Your task to perform on an android device: Search for vegetarian restaurants on Maps Image 0: 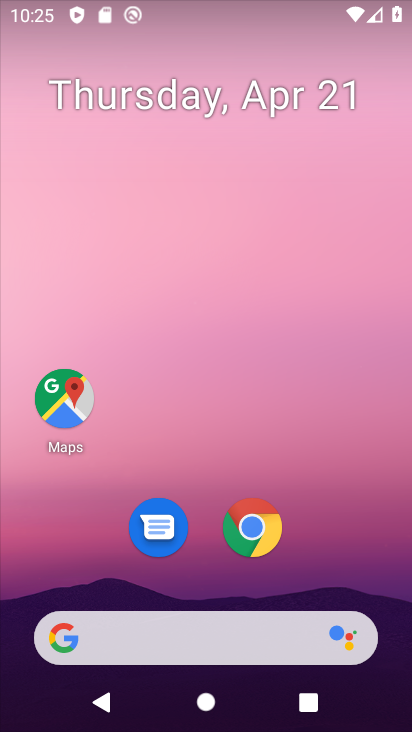
Step 0: click (48, 404)
Your task to perform on an android device: Search for vegetarian restaurants on Maps Image 1: 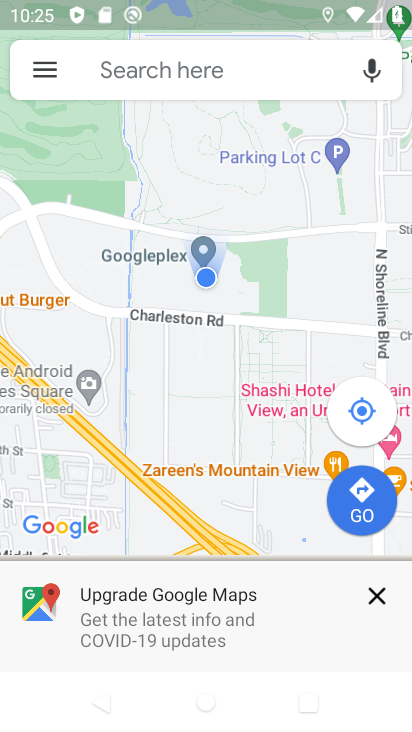
Step 1: click (153, 72)
Your task to perform on an android device: Search for vegetarian restaurants on Maps Image 2: 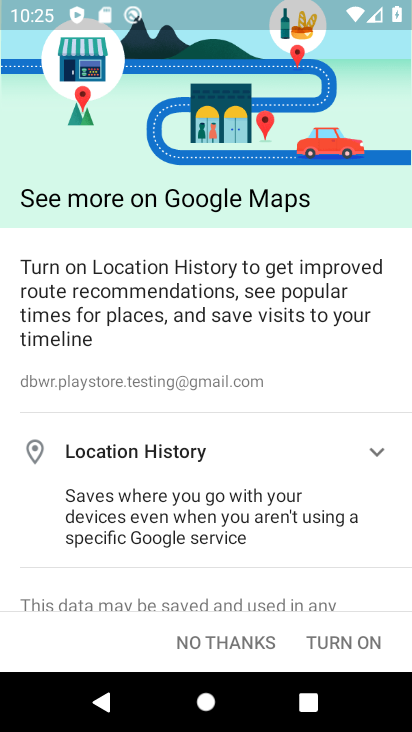
Step 2: press back button
Your task to perform on an android device: Search for vegetarian restaurants on Maps Image 3: 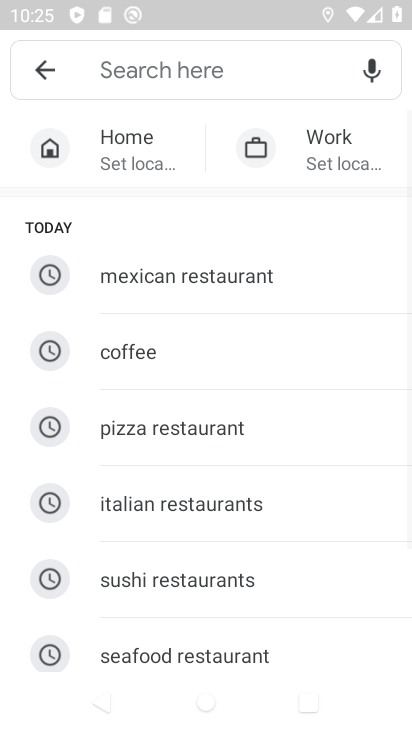
Step 3: click (200, 72)
Your task to perform on an android device: Search for vegetarian restaurants on Maps Image 4: 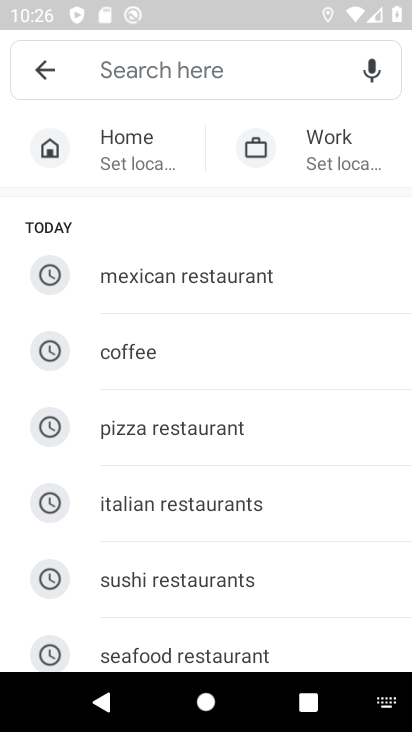
Step 4: type "vegetarian restaurant"
Your task to perform on an android device: Search for vegetarian restaurants on Maps Image 5: 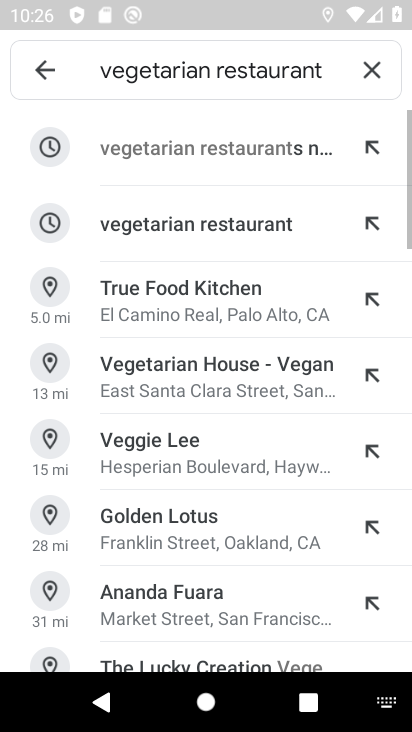
Step 5: click (205, 235)
Your task to perform on an android device: Search for vegetarian restaurants on Maps Image 6: 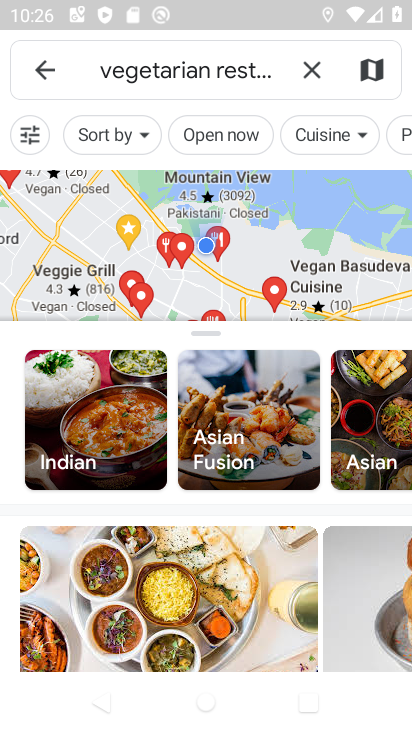
Step 6: task complete